Your task to perform on an android device: toggle notification dots Image 0: 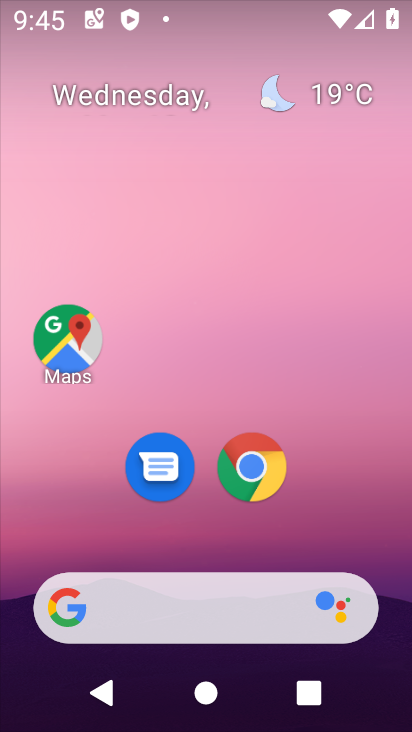
Step 0: drag from (320, 433) to (228, 23)
Your task to perform on an android device: toggle notification dots Image 1: 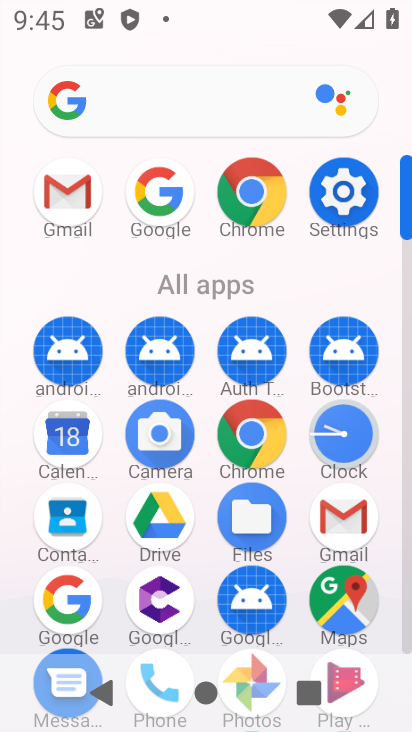
Step 1: click (345, 201)
Your task to perform on an android device: toggle notification dots Image 2: 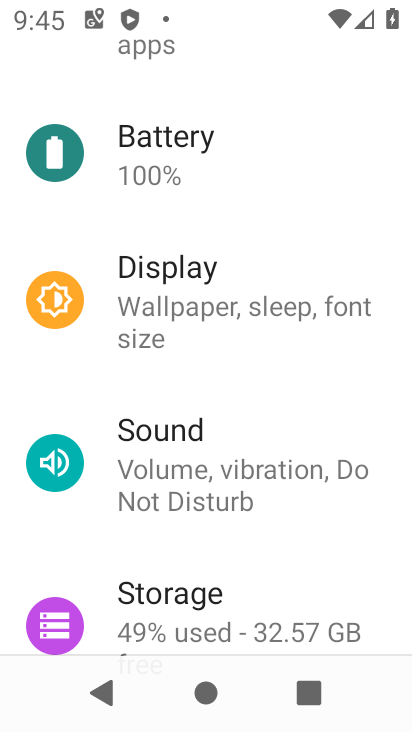
Step 2: drag from (278, 537) to (276, 126)
Your task to perform on an android device: toggle notification dots Image 3: 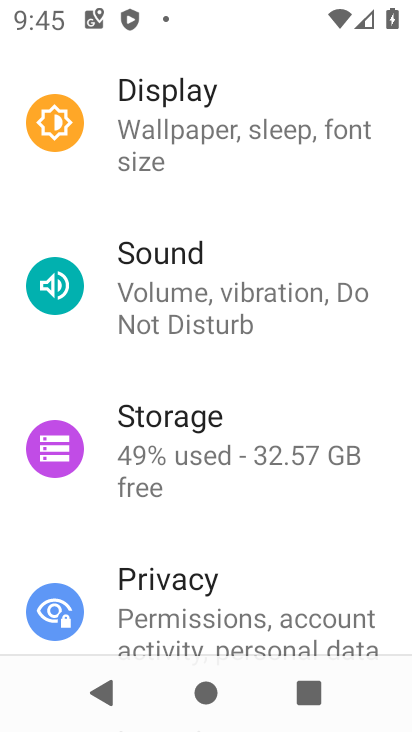
Step 3: drag from (249, 144) to (241, 637)
Your task to perform on an android device: toggle notification dots Image 4: 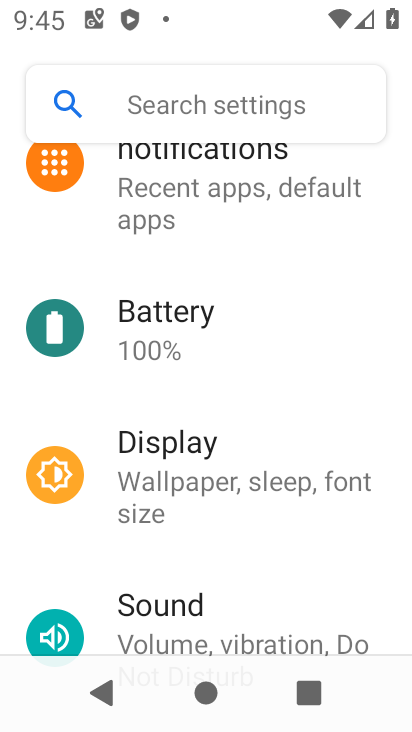
Step 4: click (233, 189)
Your task to perform on an android device: toggle notification dots Image 5: 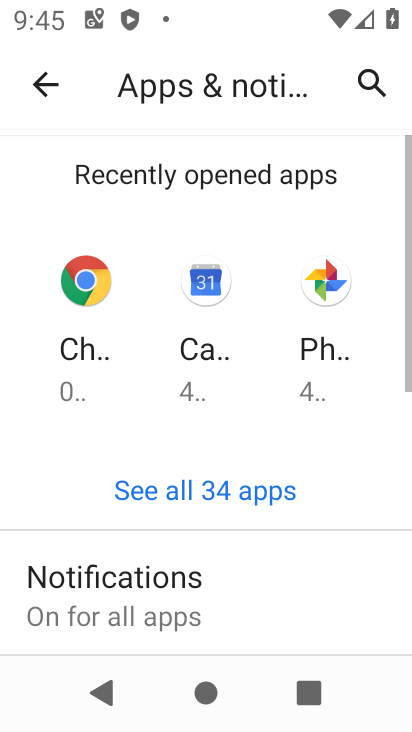
Step 5: click (186, 589)
Your task to perform on an android device: toggle notification dots Image 6: 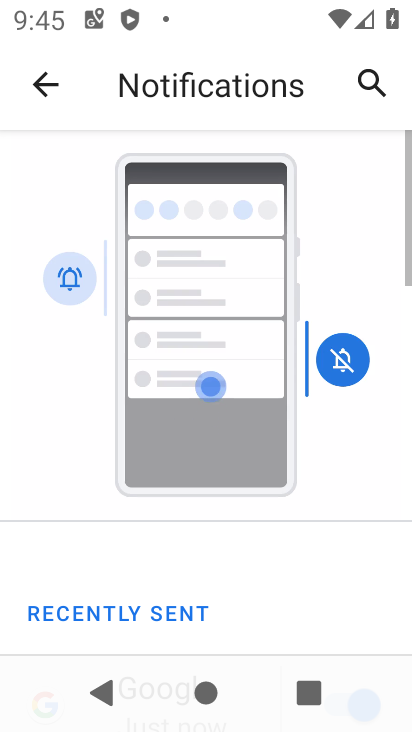
Step 6: drag from (275, 586) to (260, 116)
Your task to perform on an android device: toggle notification dots Image 7: 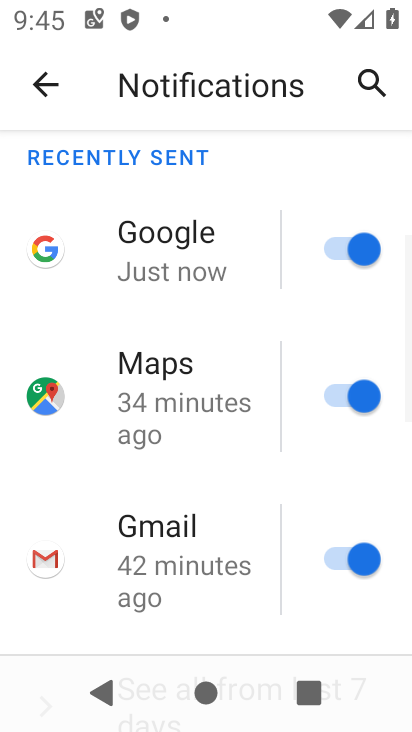
Step 7: drag from (264, 550) to (251, 92)
Your task to perform on an android device: toggle notification dots Image 8: 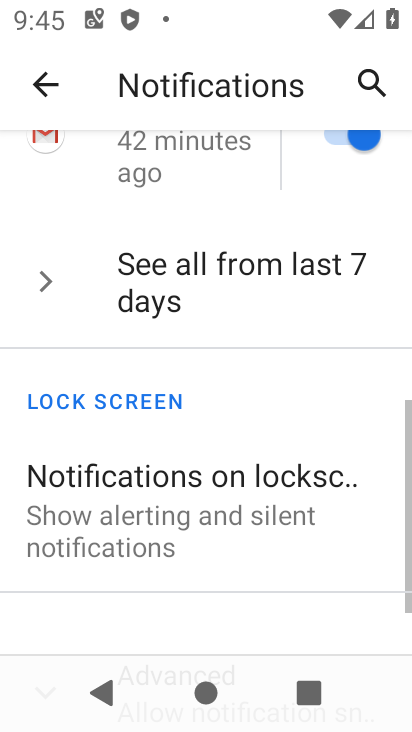
Step 8: drag from (230, 586) to (244, 146)
Your task to perform on an android device: toggle notification dots Image 9: 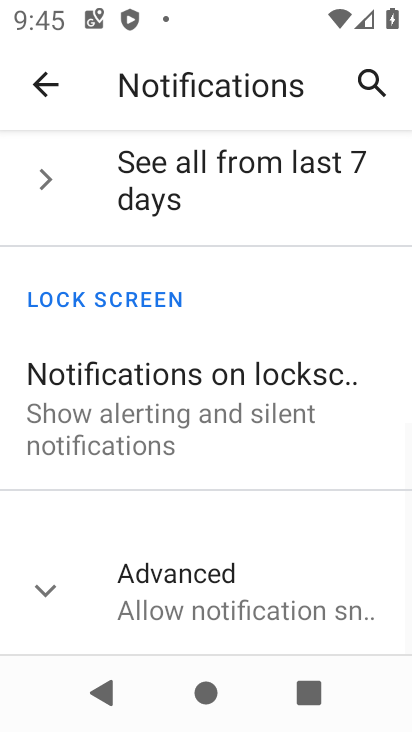
Step 9: click (250, 581)
Your task to perform on an android device: toggle notification dots Image 10: 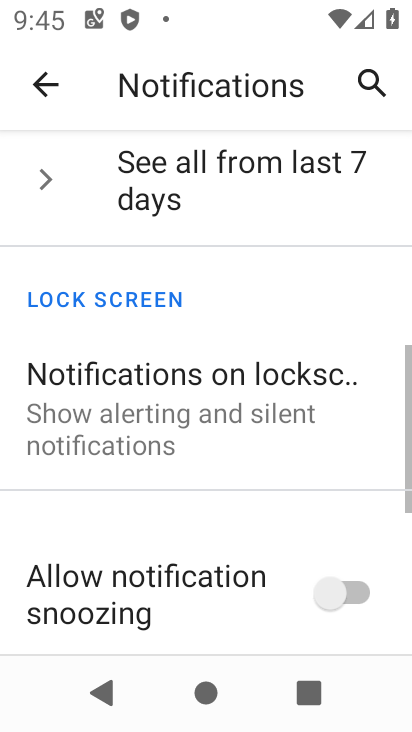
Step 10: drag from (225, 600) to (223, 63)
Your task to perform on an android device: toggle notification dots Image 11: 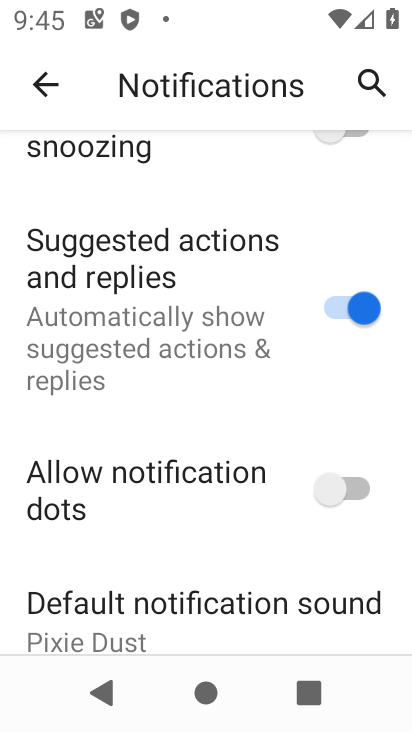
Step 11: click (331, 487)
Your task to perform on an android device: toggle notification dots Image 12: 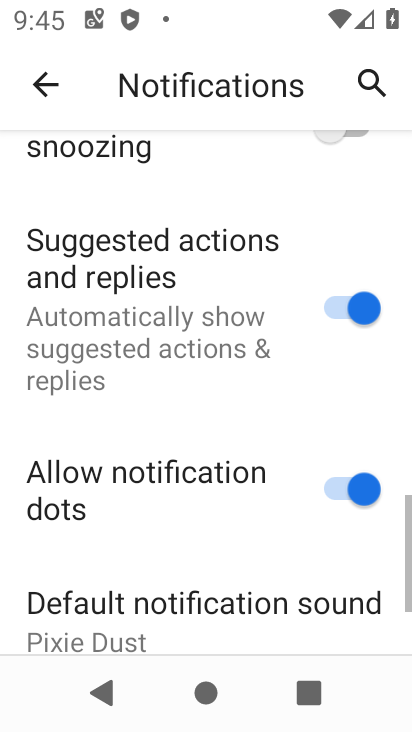
Step 12: task complete